Your task to perform on an android device: Turn off the flashlight Image 0: 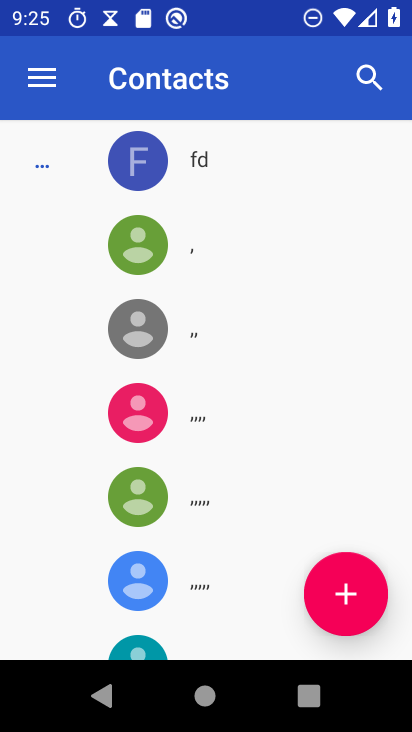
Step 0: press home button
Your task to perform on an android device: Turn off the flashlight Image 1: 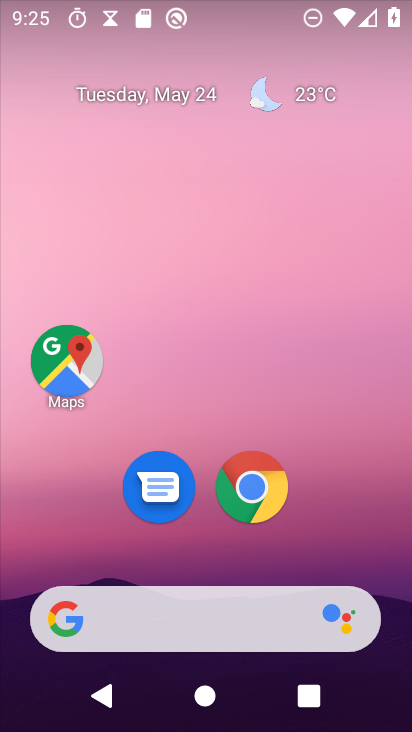
Step 1: drag from (35, 683) to (298, 174)
Your task to perform on an android device: Turn off the flashlight Image 2: 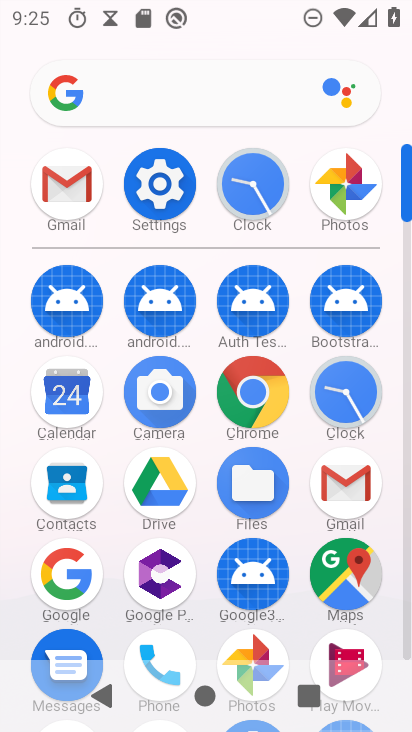
Step 2: click (127, 198)
Your task to perform on an android device: Turn off the flashlight Image 3: 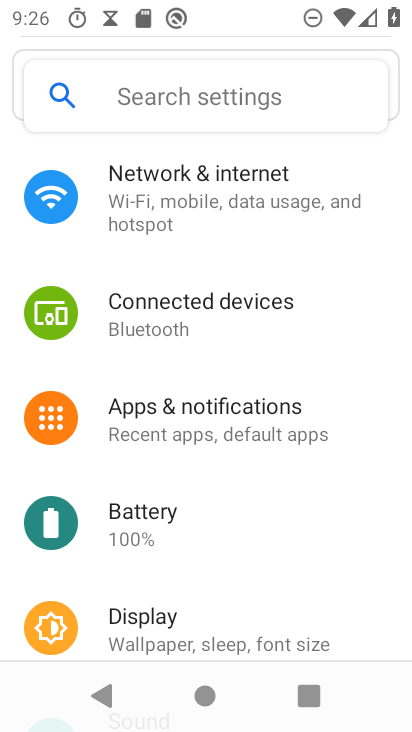
Step 3: task complete